Your task to perform on an android device: check data usage Image 0: 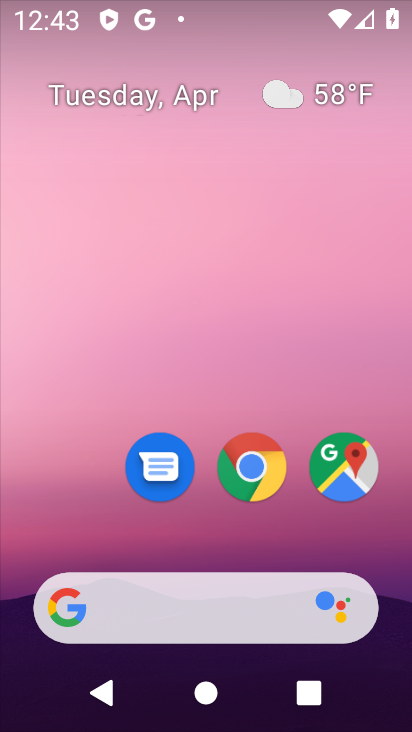
Step 0: drag from (229, 17) to (222, 495)
Your task to perform on an android device: check data usage Image 1: 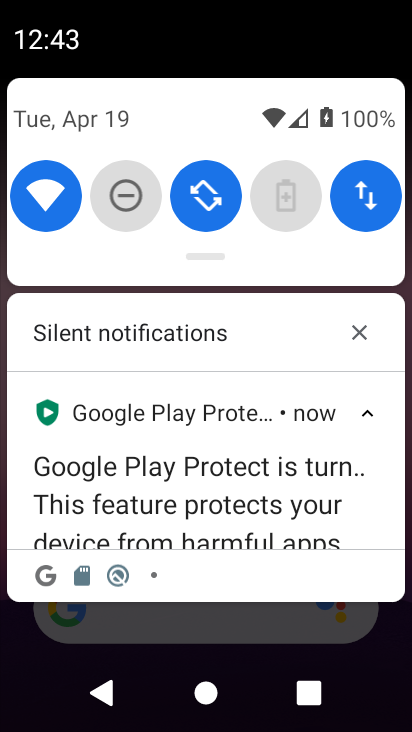
Step 1: drag from (206, 110) to (229, 651)
Your task to perform on an android device: check data usage Image 2: 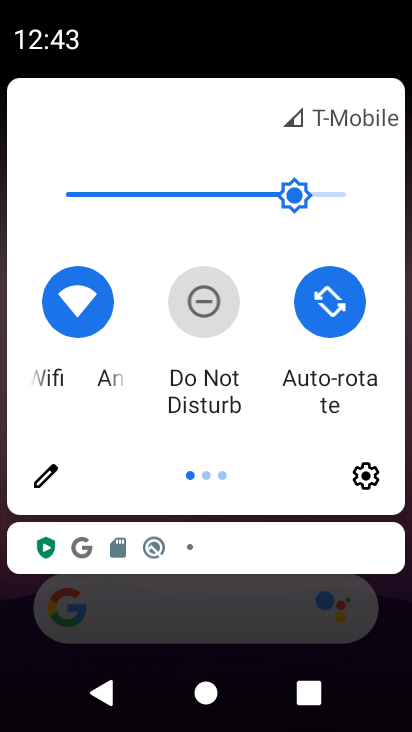
Step 2: click (364, 471)
Your task to perform on an android device: check data usage Image 3: 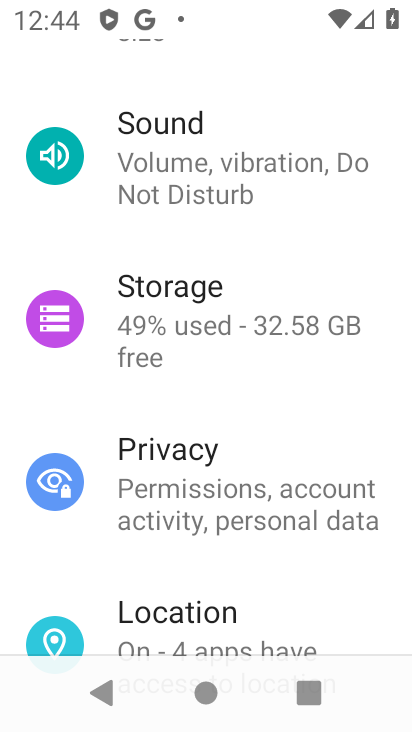
Step 3: drag from (209, 147) to (241, 574)
Your task to perform on an android device: check data usage Image 4: 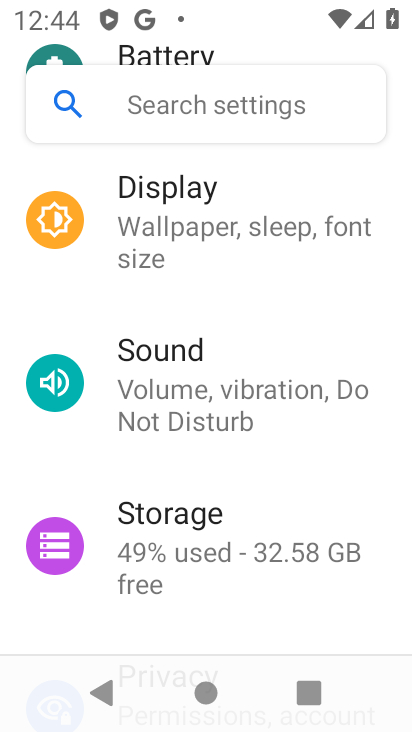
Step 4: drag from (239, 192) to (257, 522)
Your task to perform on an android device: check data usage Image 5: 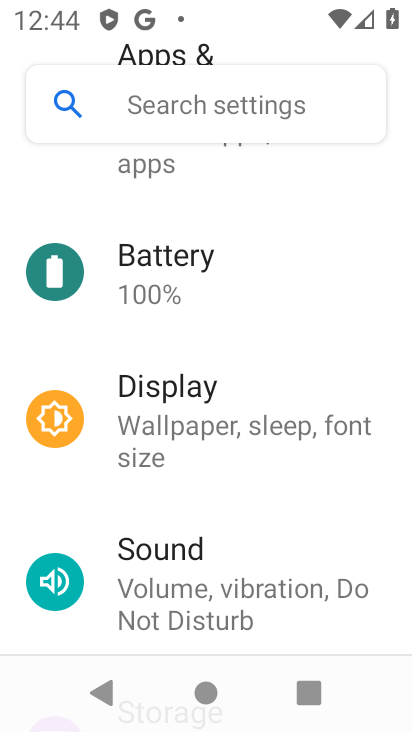
Step 5: drag from (242, 219) to (278, 516)
Your task to perform on an android device: check data usage Image 6: 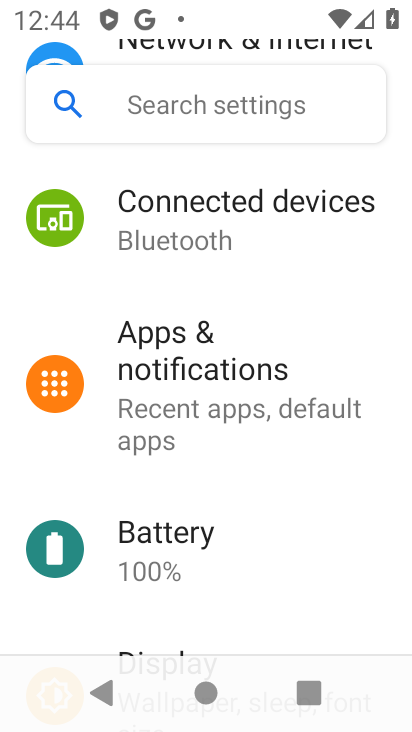
Step 6: drag from (159, 174) to (197, 452)
Your task to perform on an android device: check data usage Image 7: 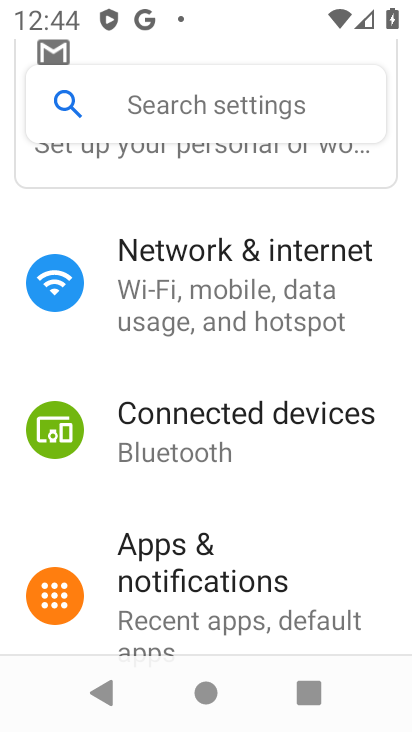
Step 7: drag from (188, 229) to (226, 554)
Your task to perform on an android device: check data usage Image 8: 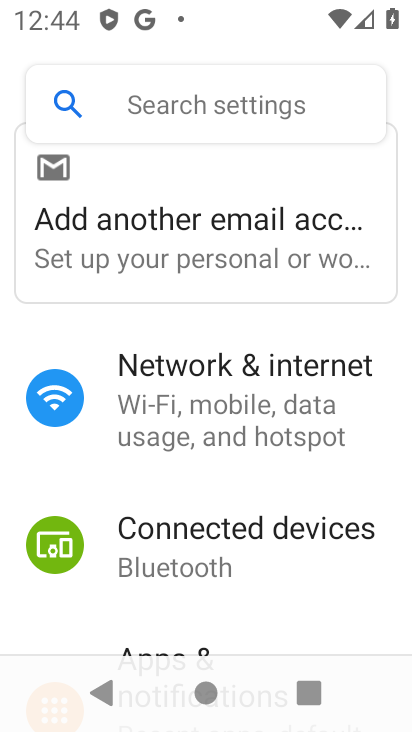
Step 8: click (188, 434)
Your task to perform on an android device: check data usage Image 9: 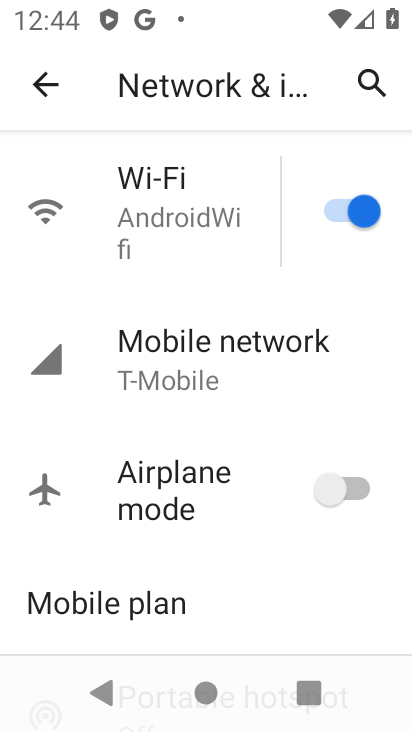
Step 9: click (202, 366)
Your task to perform on an android device: check data usage Image 10: 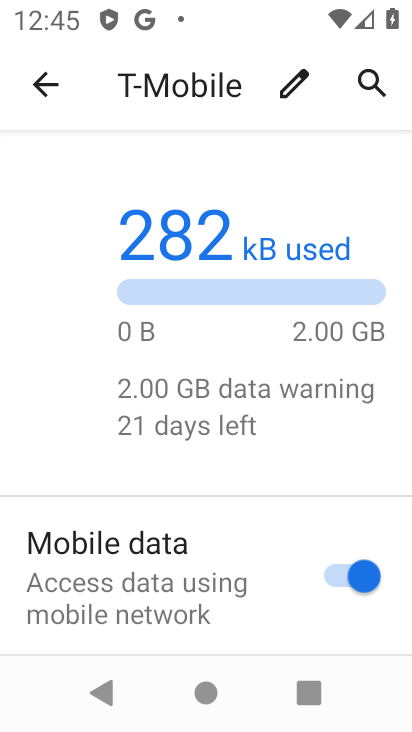
Step 10: task complete